Your task to perform on an android device: What's the weather today? Image 0: 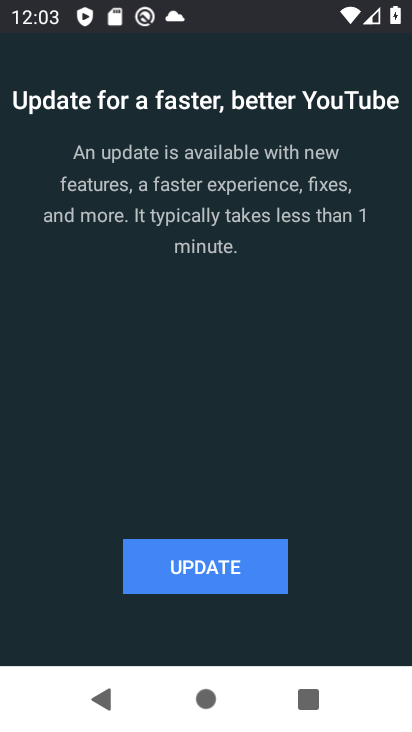
Step 0: drag from (104, 623) to (86, 203)
Your task to perform on an android device: What's the weather today? Image 1: 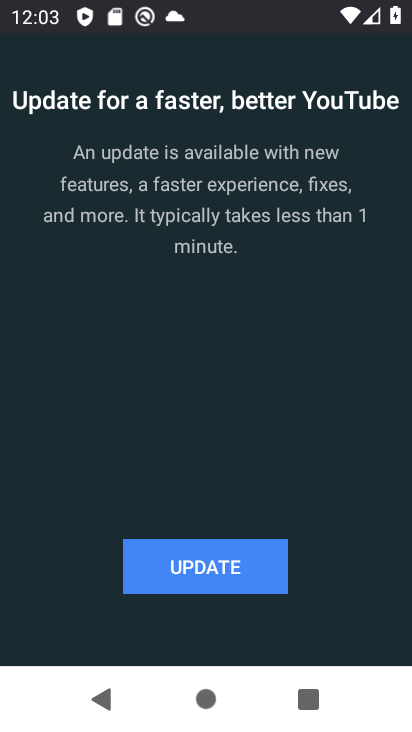
Step 1: press home button
Your task to perform on an android device: What's the weather today? Image 2: 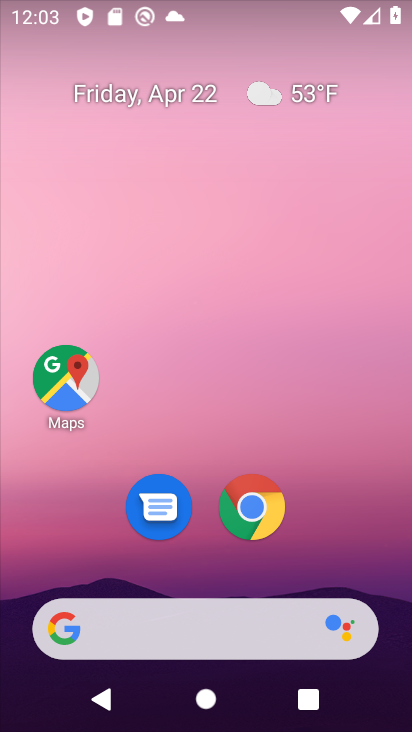
Step 2: click (282, 109)
Your task to perform on an android device: What's the weather today? Image 3: 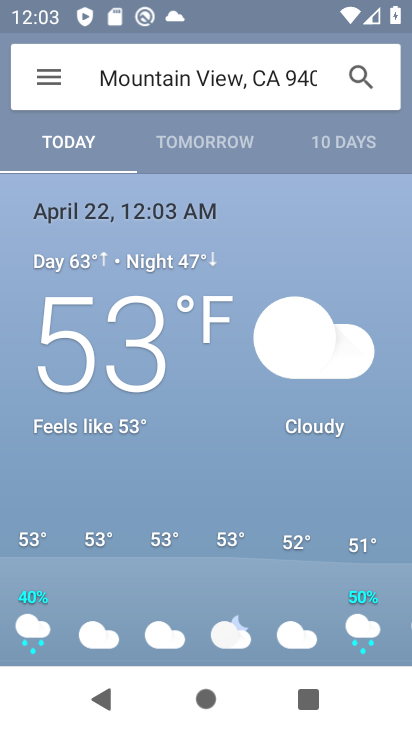
Step 3: task complete